Your task to perform on an android device: Clear all items from cart on amazon. Search for "acer predator" on amazon, select the first entry, and add it to the cart. Image 0: 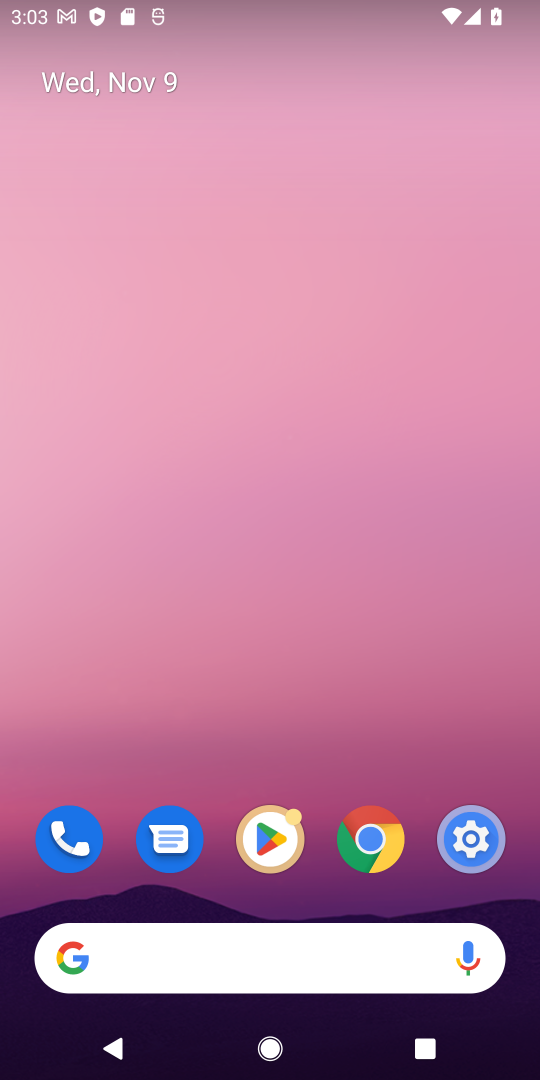
Step 0: click (232, 942)
Your task to perform on an android device: Clear all items from cart on amazon. Search for "acer predator" on amazon, select the first entry, and add it to the cart. Image 1: 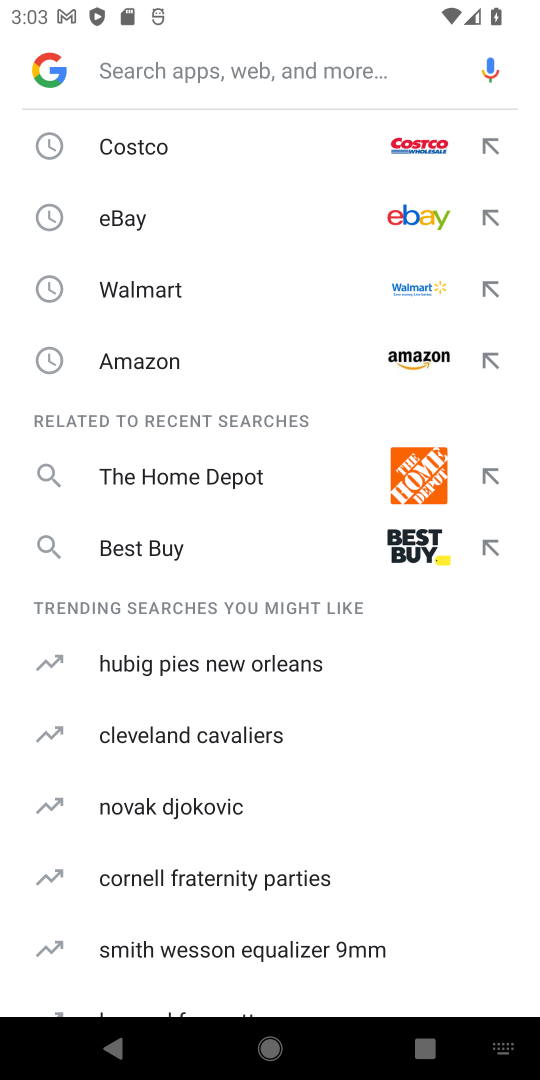
Step 1: click (187, 355)
Your task to perform on an android device: Clear all items from cart on amazon. Search for "acer predator" on amazon, select the first entry, and add it to the cart. Image 2: 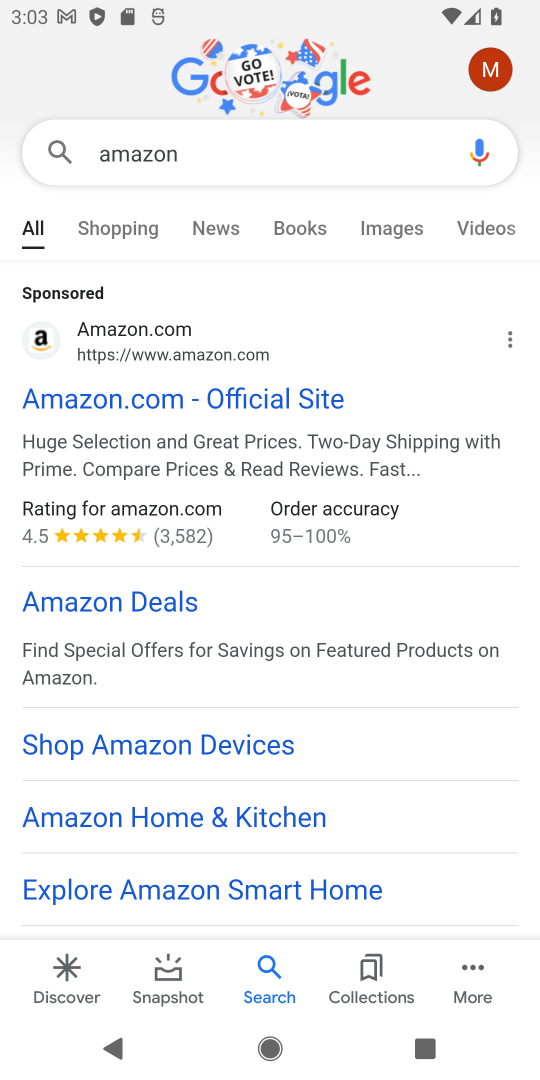
Step 2: click (231, 403)
Your task to perform on an android device: Clear all items from cart on amazon. Search for "acer predator" on amazon, select the first entry, and add it to the cart. Image 3: 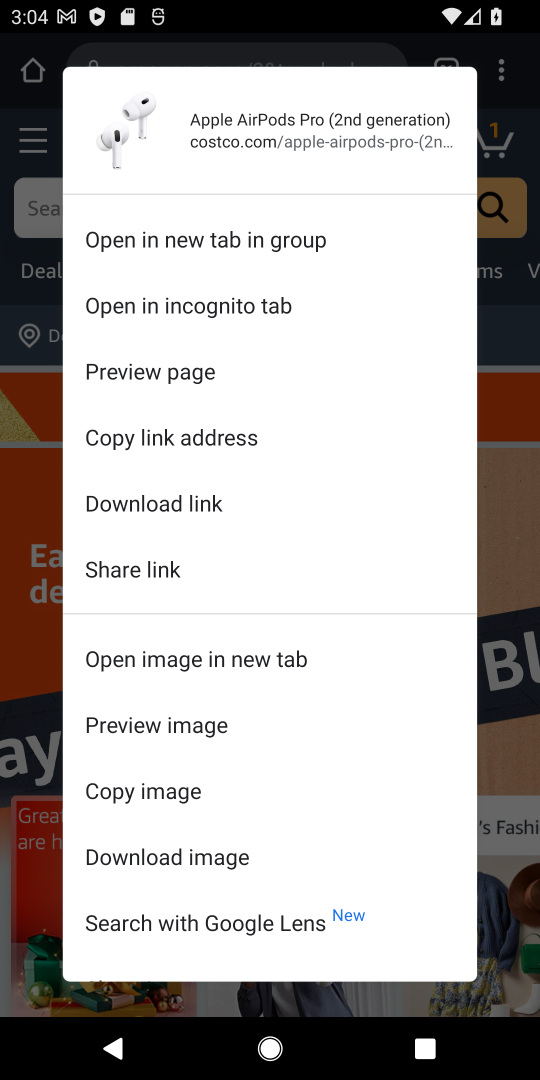
Step 3: task complete